Your task to perform on an android device: Go to sound settings Image 0: 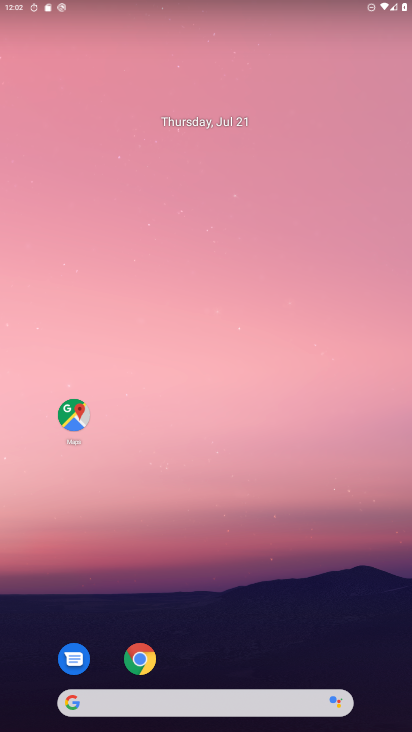
Step 0: click (322, 6)
Your task to perform on an android device: Go to sound settings Image 1: 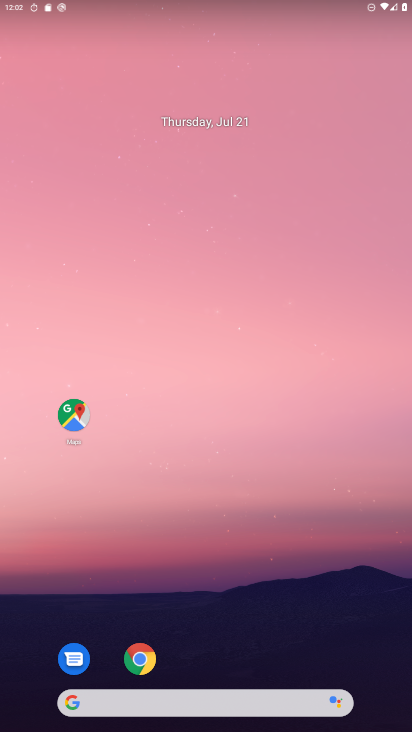
Step 1: drag from (202, 177) to (201, 93)
Your task to perform on an android device: Go to sound settings Image 2: 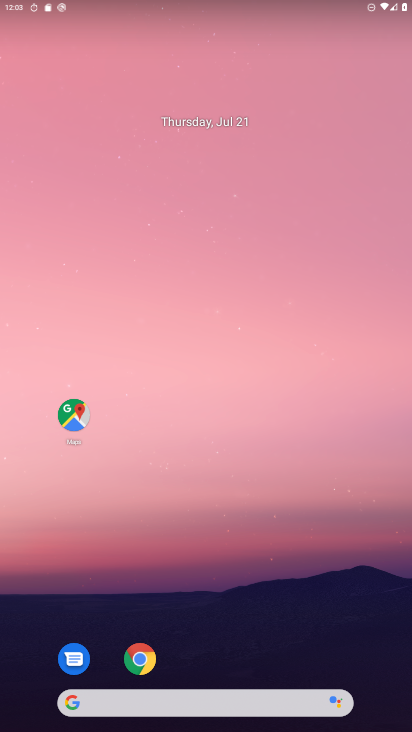
Step 2: drag from (254, 328) to (253, 82)
Your task to perform on an android device: Go to sound settings Image 3: 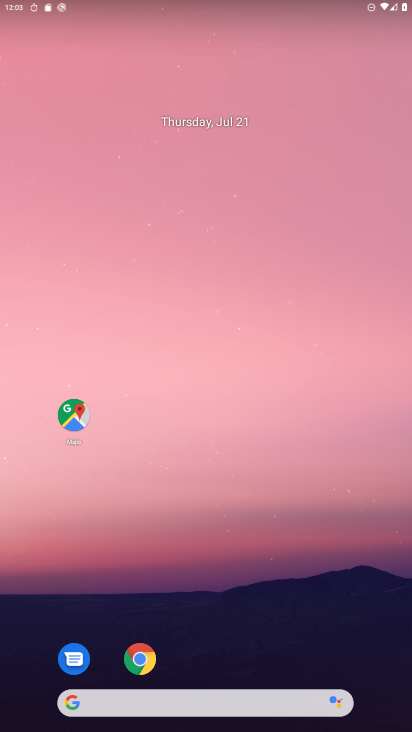
Step 3: drag from (318, 617) to (235, 105)
Your task to perform on an android device: Go to sound settings Image 4: 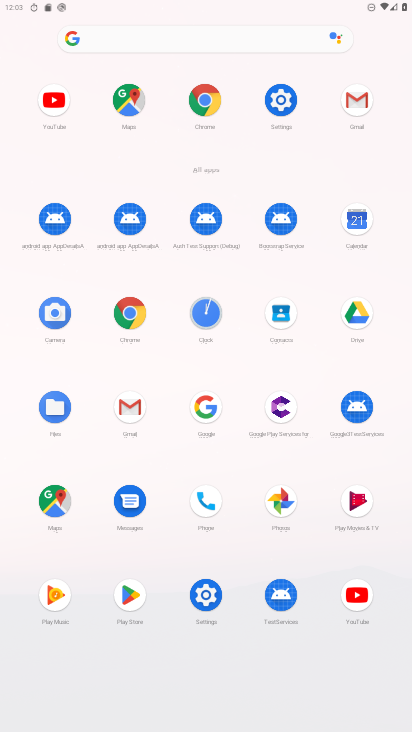
Step 4: click (284, 104)
Your task to perform on an android device: Go to sound settings Image 5: 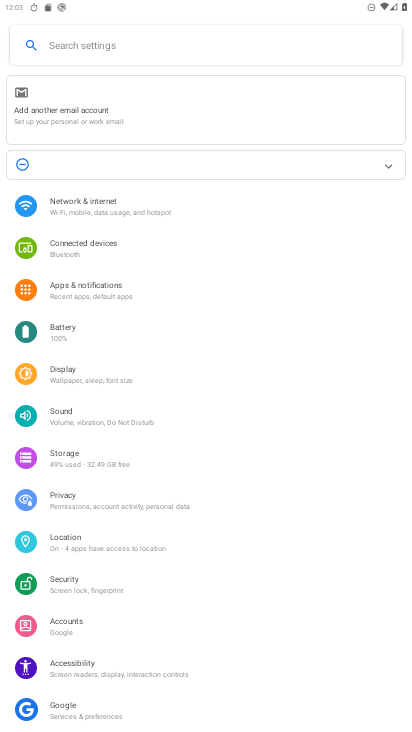
Step 5: click (96, 417)
Your task to perform on an android device: Go to sound settings Image 6: 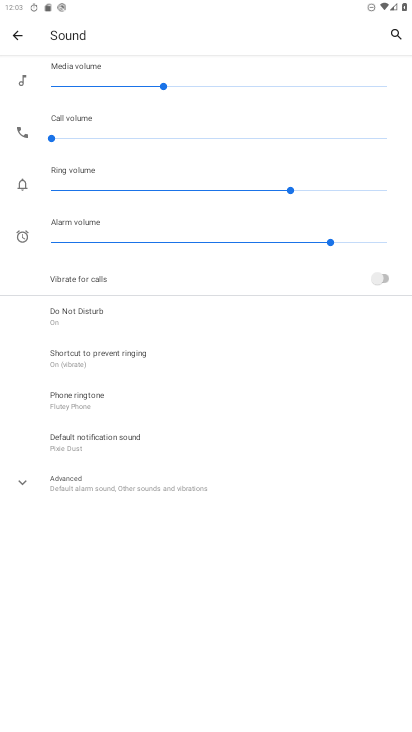
Step 6: task complete